Your task to perform on an android device: Open eBay Image 0: 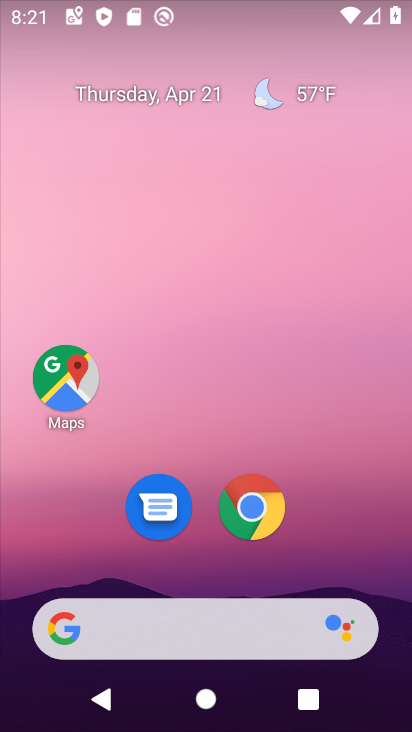
Step 0: drag from (378, 529) to (383, 30)
Your task to perform on an android device: Open eBay Image 1: 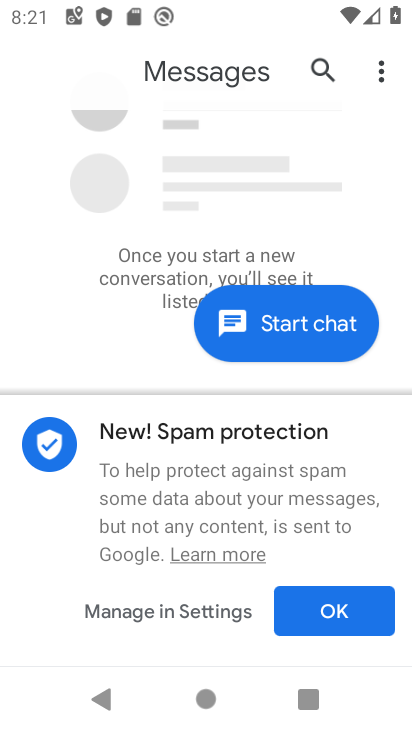
Step 1: press home button
Your task to perform on an android device: Open eBay Image 2: 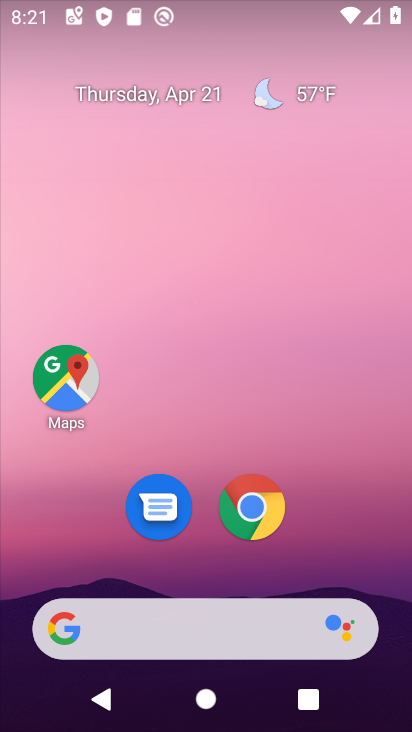
Step 2: click (246, 510)
Your task to perform on an android device: Open eBay Image 3: 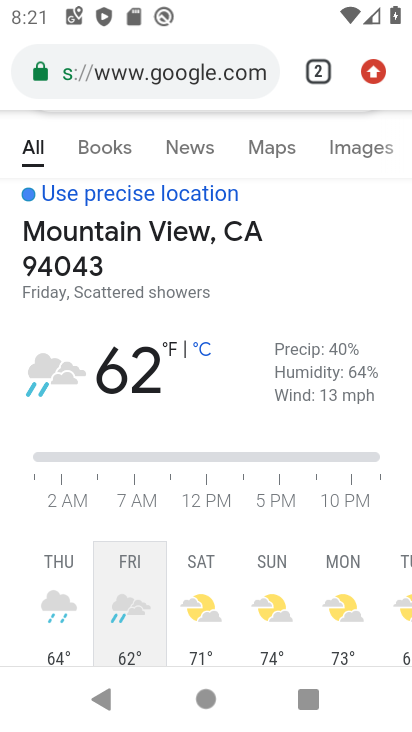
Step 3: click (220, 66)
Your task to perform on an android device: Open eBay Image 4: 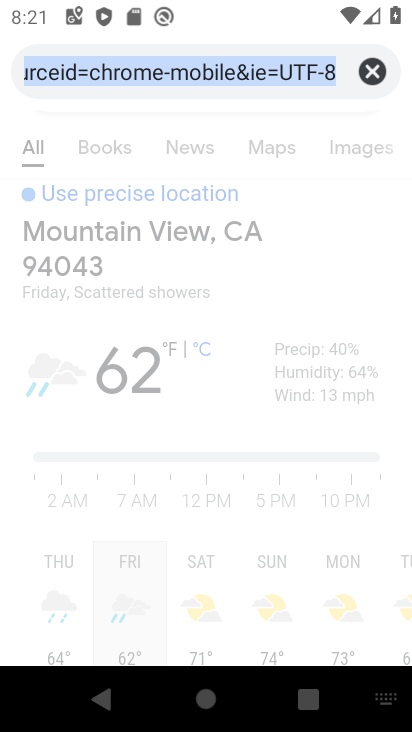
Step 4: click (369, 68)
Your task to perform on an android device: Open eBay Image 5: 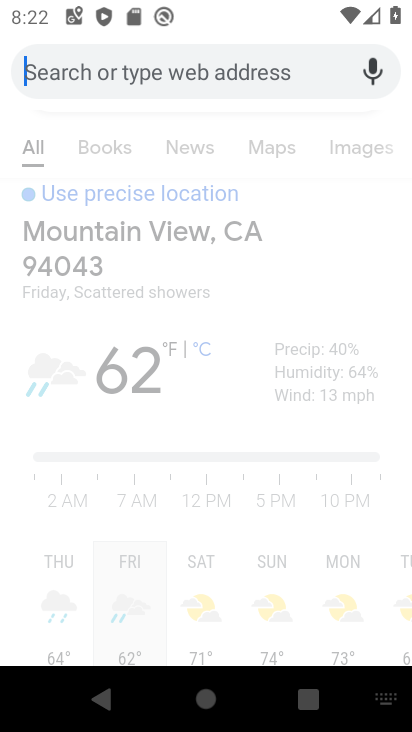
Step 5: type "eBay"
Your task to perform on an android device: Open eBay Image 6: 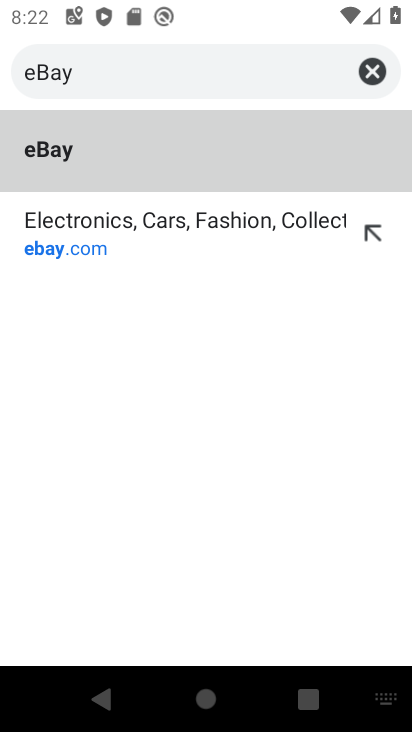
Step 6: click (69, 148)
Your task to perform on an android device: Open eBay Image 7: 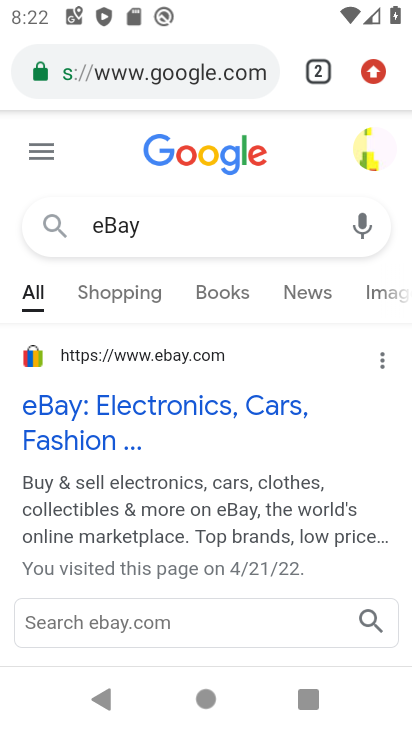
Step 7: click (109, 405)
Your task to perform on an android device: Open eBay Image 8: 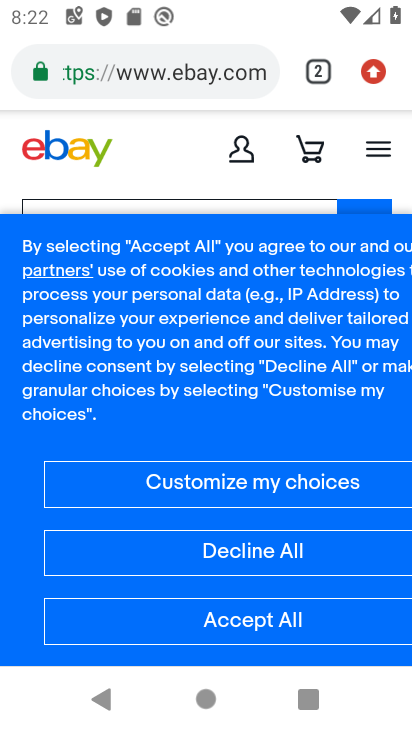
Step 8: task complete